Your task to perform on an android device: search for starred emails in the gmail app Image 0: 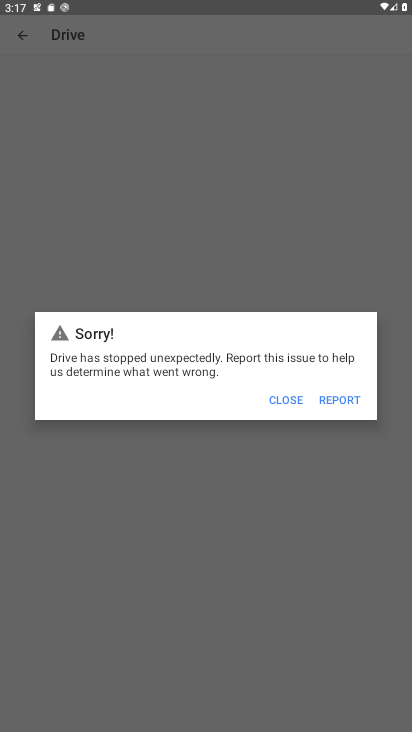
Step 0: press home button
Your task to perform on an android device: search for starred emails in the gmail app Image 1: 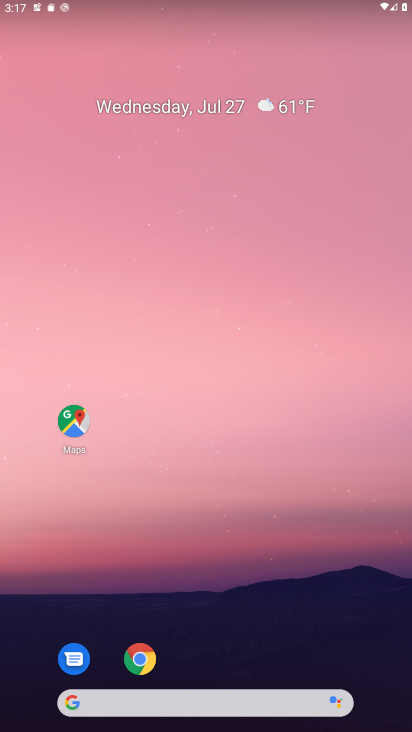
Step 1: drag from (208, 698) to (123, 82)
Your task to perform on an android device: search for starred emails in the gmail app Image 2: 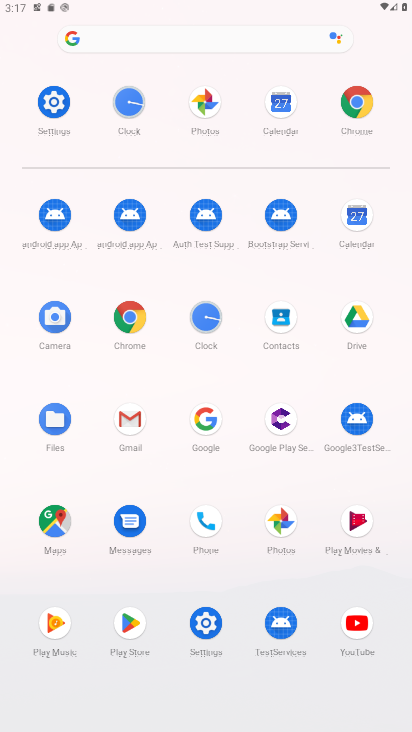
Step 2: click (122, 427)
Your task to perform on an android device: search for starred emails in the gmail app Image 3: 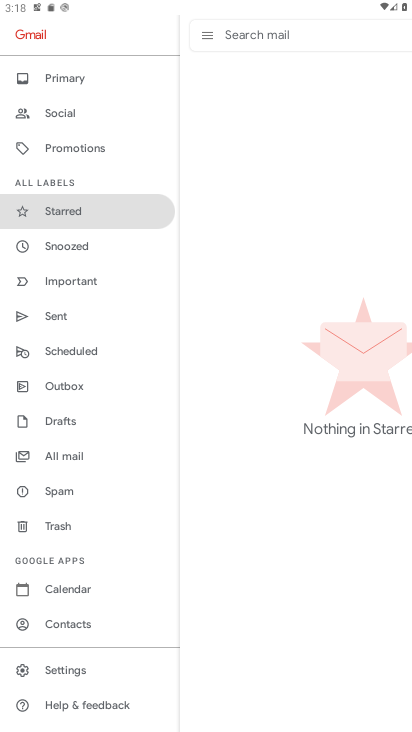
Step 3: task complete